Your task to perform on an android device: Go to Android settings Image 0: 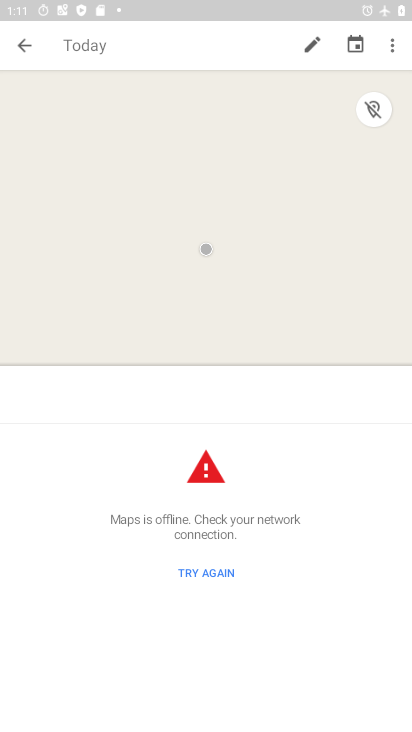
Step 0: press home button
Your task to perform on an android device: Go to Android settings Image 1: 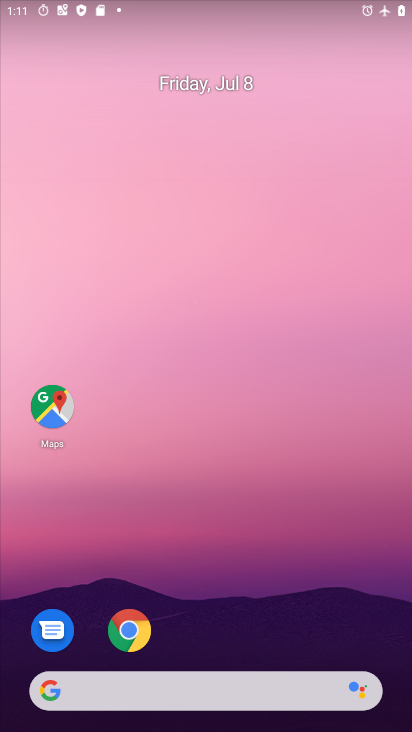
Step 1: drag from (198, 656) to (209, 184)
Your task to perform on an android device: Go to Android settings Image 2: 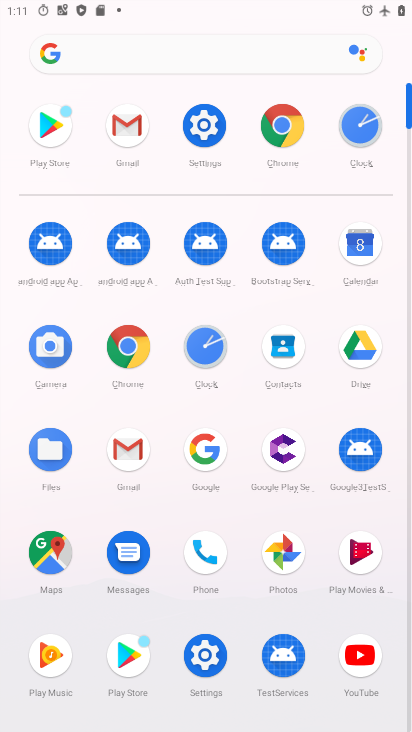
Step 2: click (211, 137)
Your task to perform on an android device: Go to Android settings Image 3: 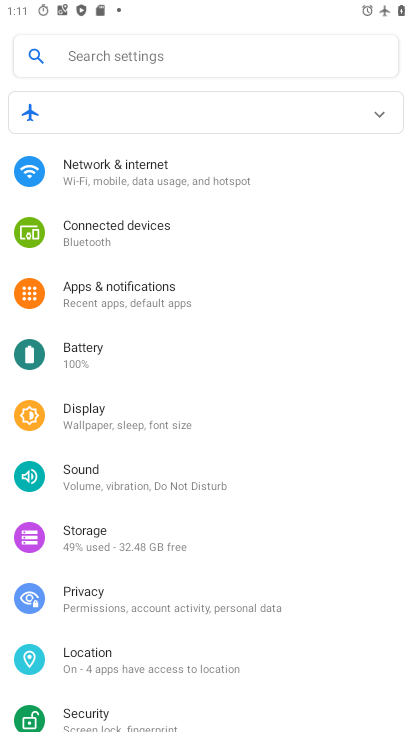
Step 3: task complete